Your task to perform on an android device: toggle translation in the chrome app Image 0: 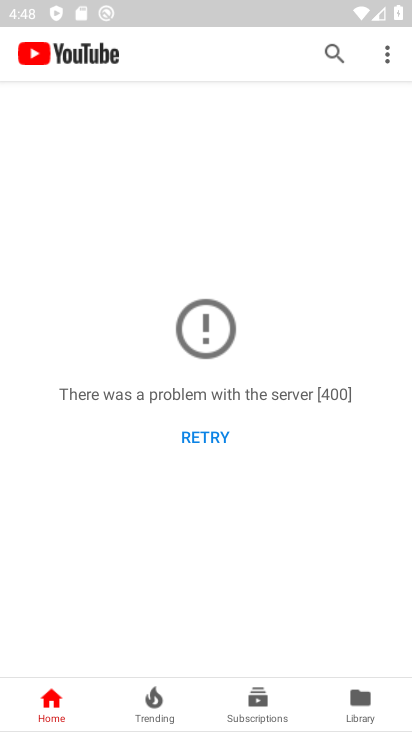
Step 0: press home button
Your task to perform on an android device: toggle translation in the chrome app Image 1: 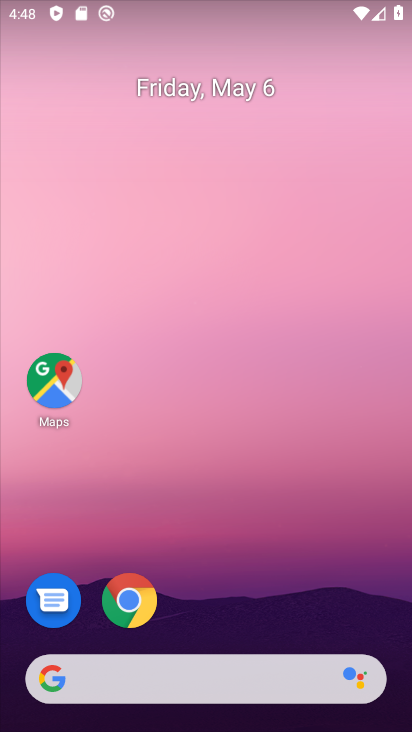
Step 1: drag from (197, 622) to (212, 103)
Your task to perform on an android device: toggle translation in the chrome app Image 2: 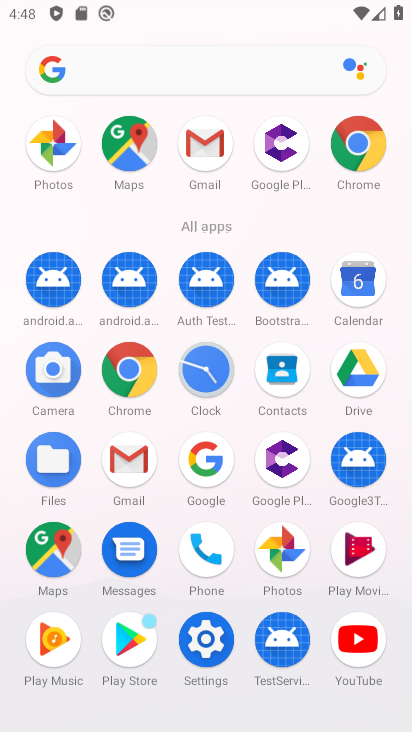
Step 2: click (113, 380)
Your task to perform on an android device: toggle translation in the chrome app Image 3: 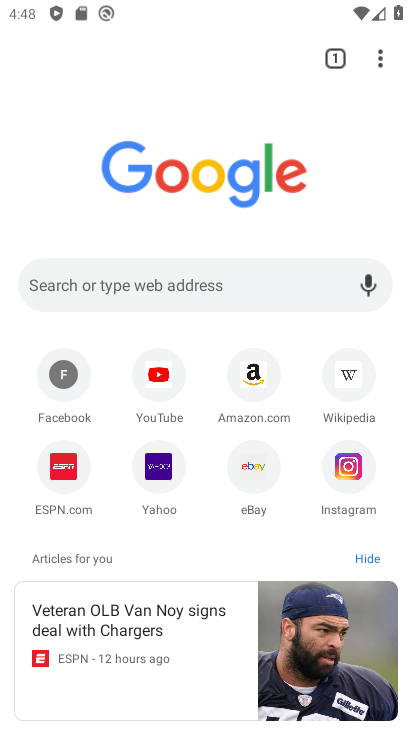
Step 3: click (385, 64)
Your task to perform on an android device: toggle translation in the chrome app Image 4: 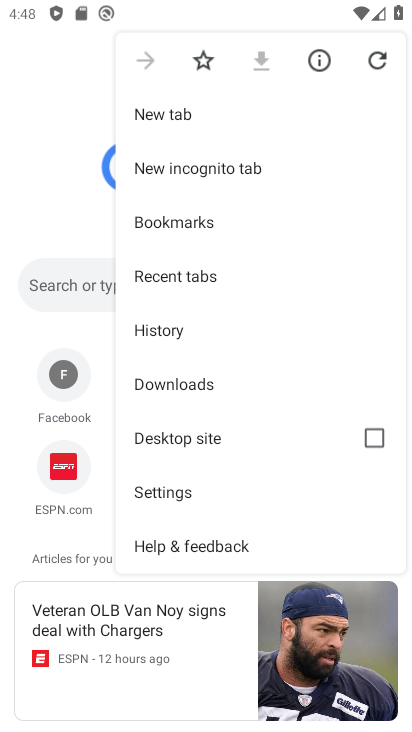
Step 4: click (168, 501)
Your task to perform on an android device: toggle translation in the chrome app Image 5: 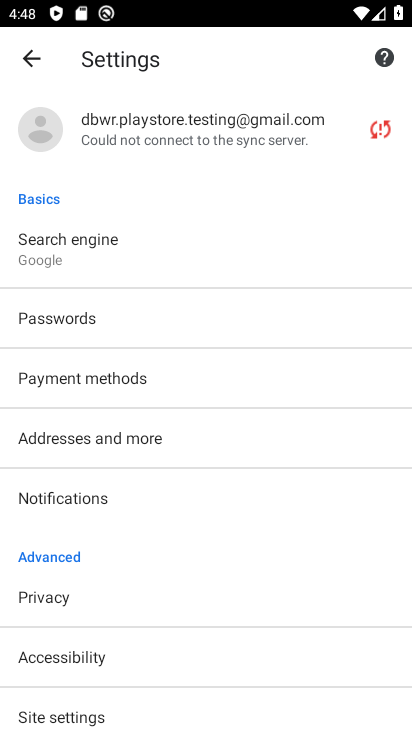
Step 5: drag from (103, 616) to (103, 327)
Your task to perform on an android device: toggle translation in the chrome app Image 6: 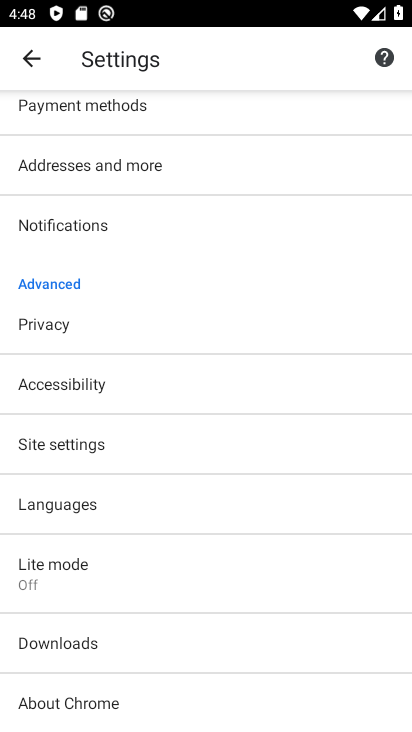
Step 6: click (56, 501)
Your task to perform on an android device: toggle translation in the chrome app Image 7: 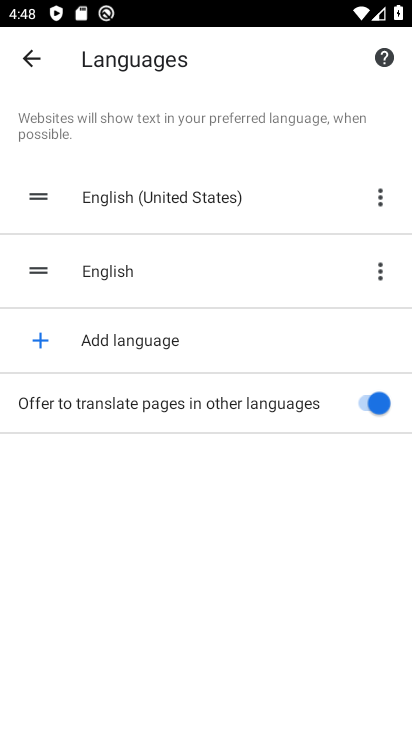
Step 7: click (361, 395)
Your task to perform on an android device: toggle translation in the chrome app Image 8: 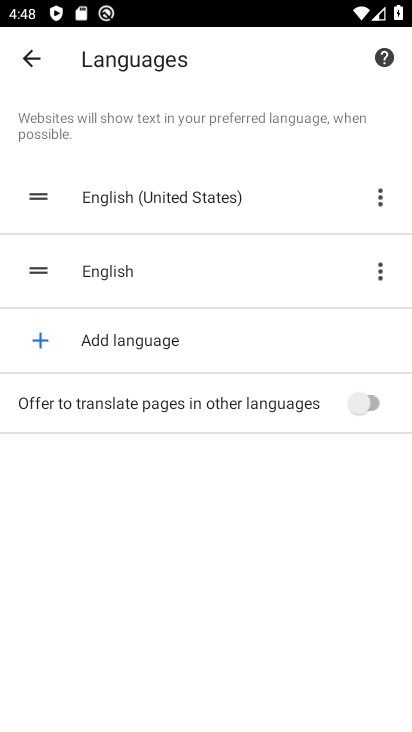
Step 8: task complete